Your task to perform on an android device: turn off data saver in the chrome app Image 0: 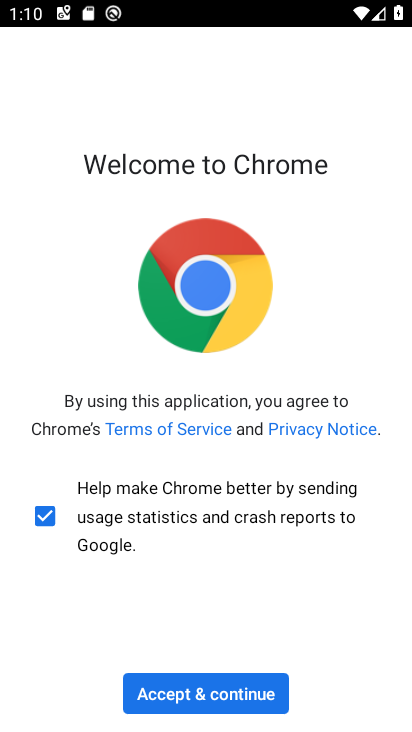
Step 0: press home button
Your task to perform on an android device: turn off data saver in the chrome app Image 1: 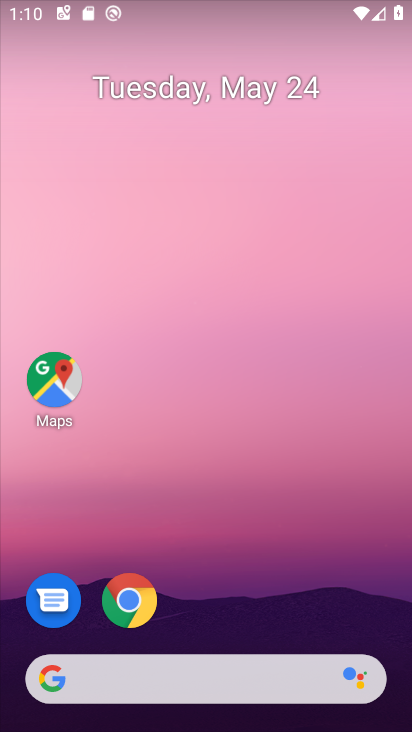
Step 1: click (146, 604)
Your task to perform on an android device: turn off data saver in the chrome app Image 2: 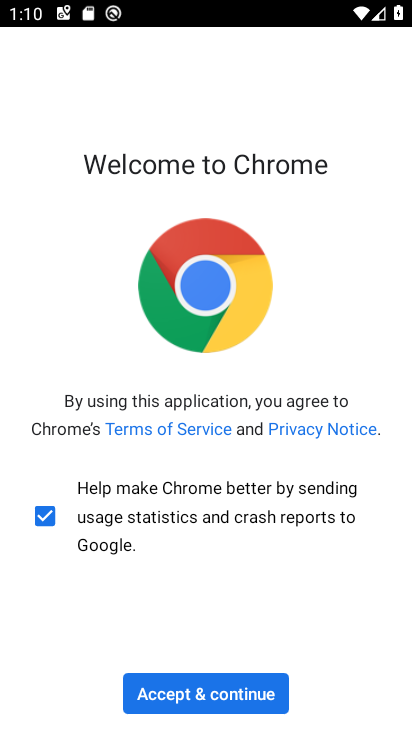
Step 2: click (207, 707)
Your task to perform on an android device: turn off data saver in the chrome app Image 3: 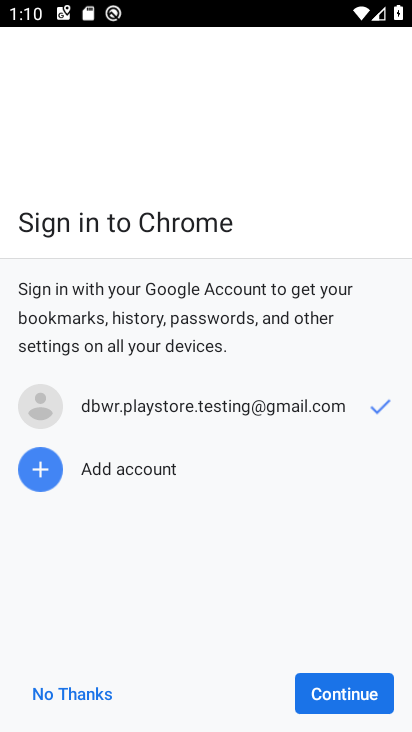
Step 3: click (307, 698)
Your task to perform on an android device: turn off data saver in the chrome app Image 4: 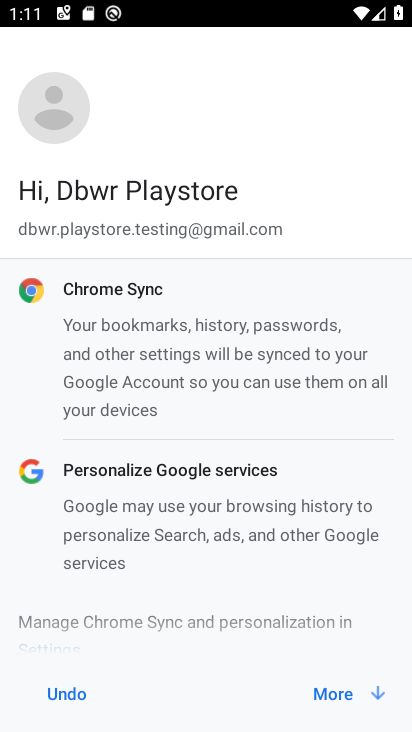
Step 4: click (307, 698)
Your task to perform on an android device: turn off data saver in the chrome app Image 5: 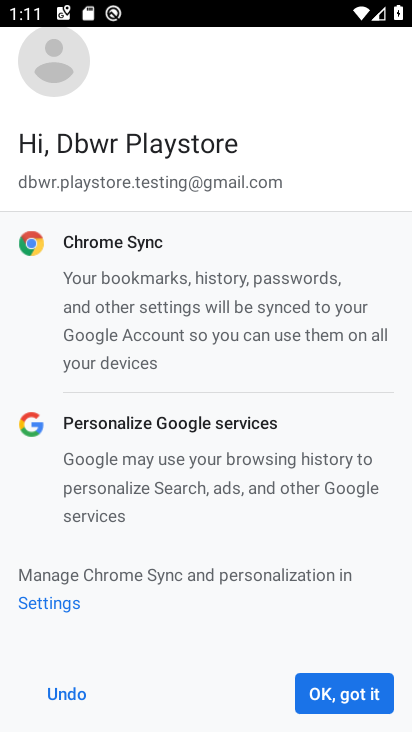
Step 5: click (307, 698)
Your task to perform on an android device: turn off data saver in the chrome app Image 6: 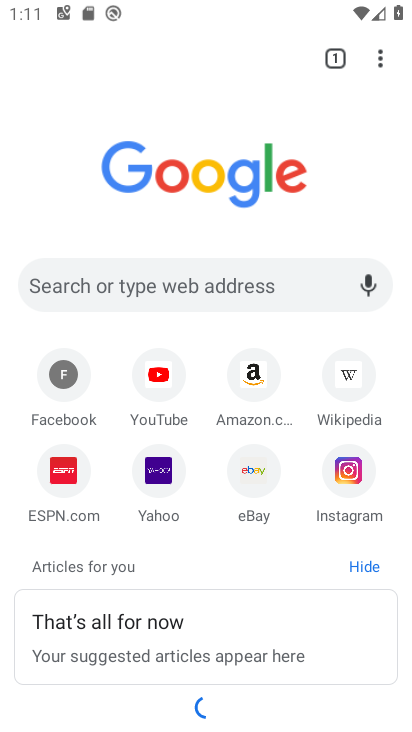
Step 6: drag from (377, 63) to (182, 487)
Your task to perform on an android device: turn off data saver in the chrome app Image 7: 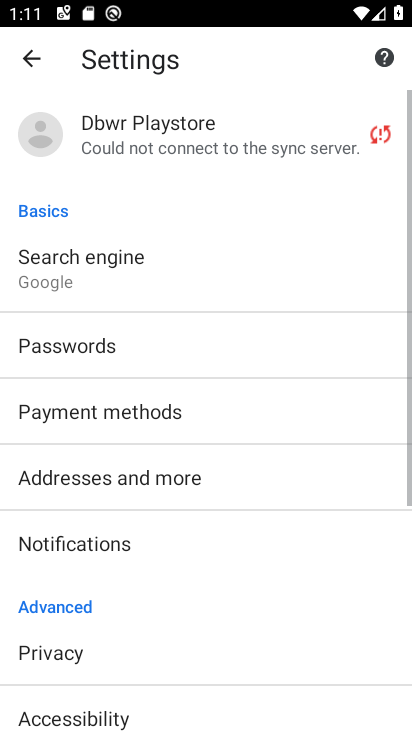
Step 7: drag from (160, 648) to (140, 332)
Your task to perform on an android device: turn off data saver in the chrome app Image 8: 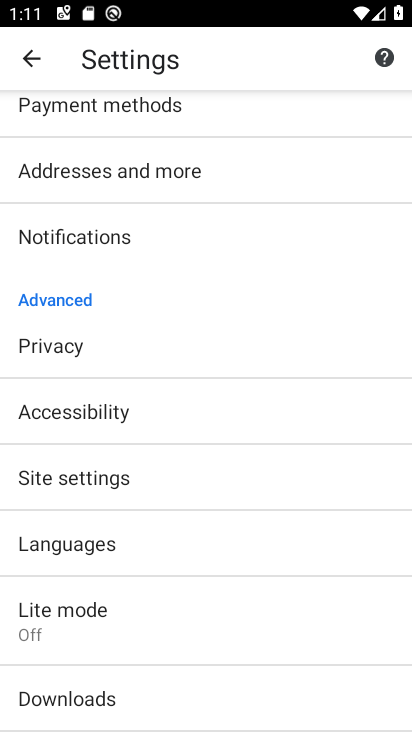
Step 8: click (105, 609)
Your task to perform on an android device: turn off data saver in the chrome app Image 9: 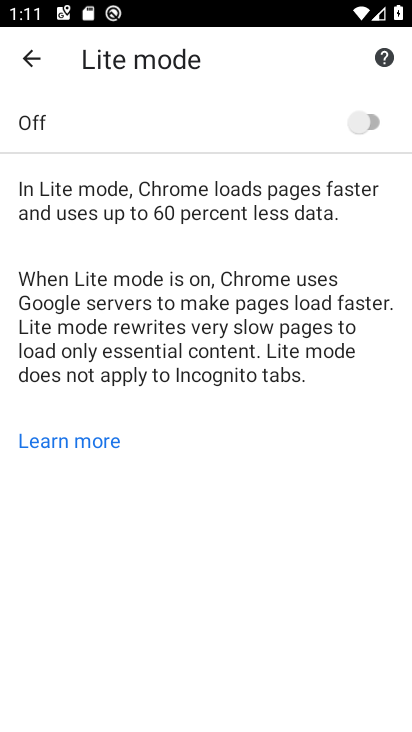
Step 9: task complete